Your task to perform on an android device: refresh tabs in the chrome app Image 0: 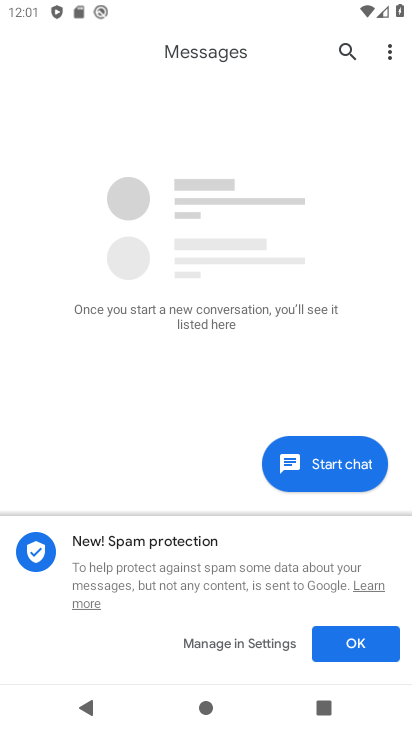
Step 0: press home button
Your task to perform on an android device: refresh tabs in the chrome app Image 1: 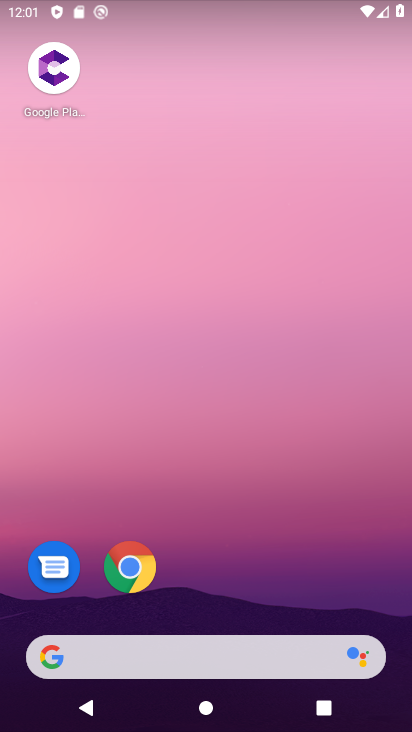
Step 1: click (147, 562)
Your task to perform on an android device: refresh tabs in the chrome app Image 2: 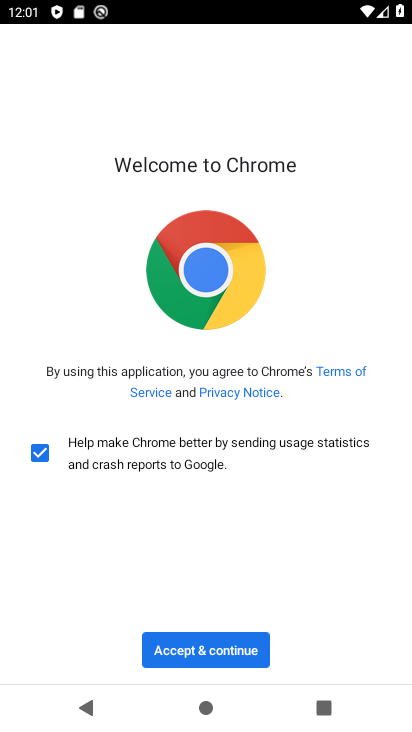
Step 2: click (231, 655)
Your task to perform on an android device: refresh tabs in the chrome app Image 3: 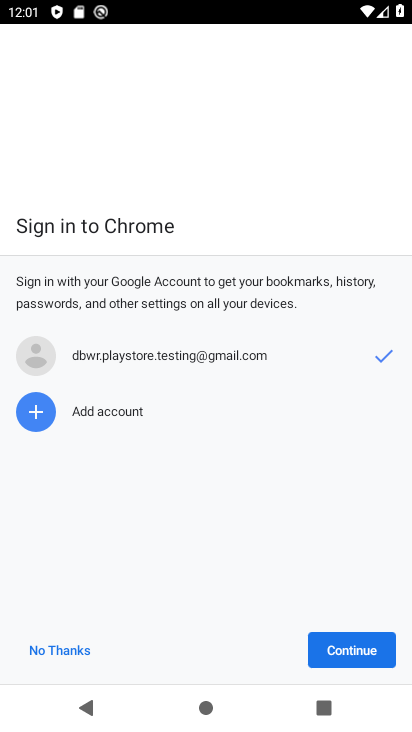
Step 3: click (347, 640)
Your task to perform on an android device: refresh tabs in the chrome app Image 4: 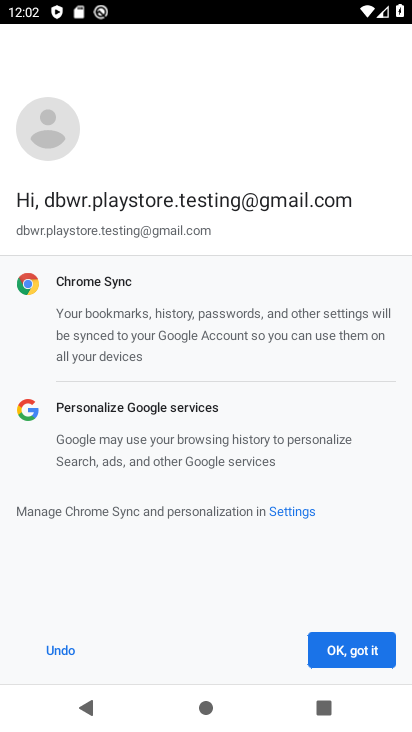
Step 4: click (346, 647)
Your task to perform on an android device: refresh tabs in the chrome app Image 5: 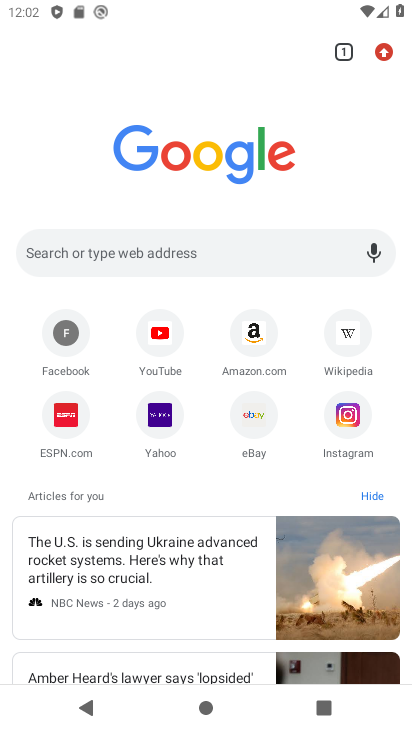
Step 5: click (377, 53)
Your task to perform on an android device: refresh tabs in the chrome app Image 6: 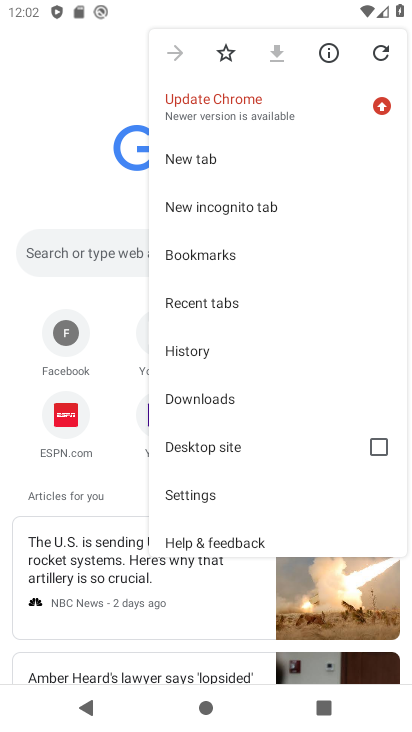
Step 6: click (372, 55)
Your task to perform on an android device: refresh tabs in the chrome app Image 7: 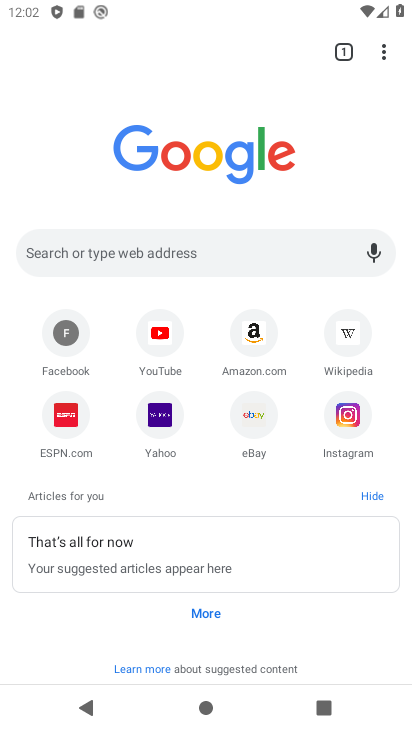
Step 7: task complete